Your task to perform on an android device: stop showing notifications on the lock screen Image 0: 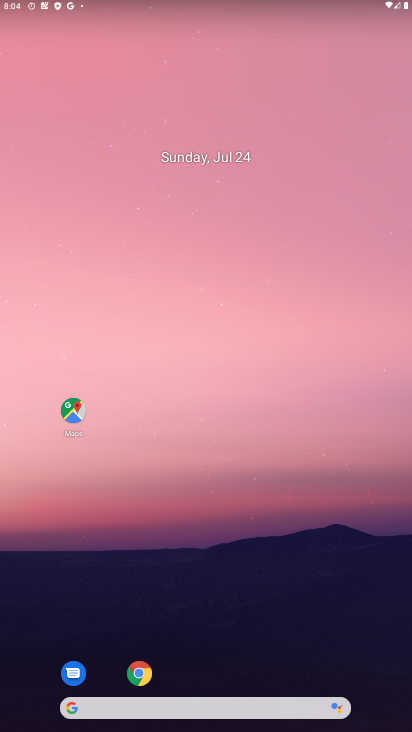
Step 0: drag from (21, 691) to (211, 195)
Your task to perform on an android device: stop showing notifications on the lock screen Image 1: 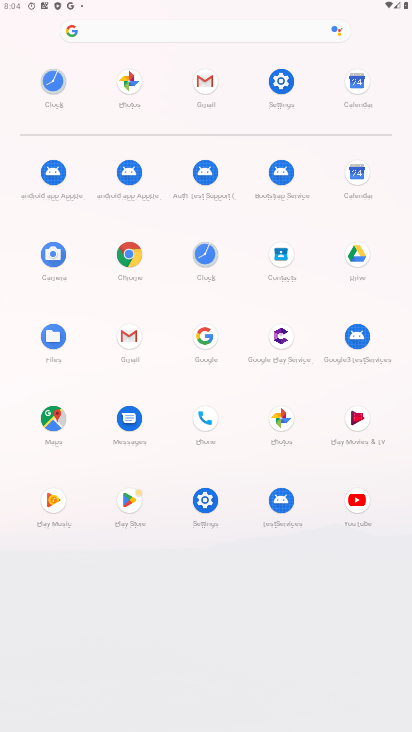
Step 1: click (208, 508)
Your task to perform on an android device: stop showing notifications on the lock screen Image 2: 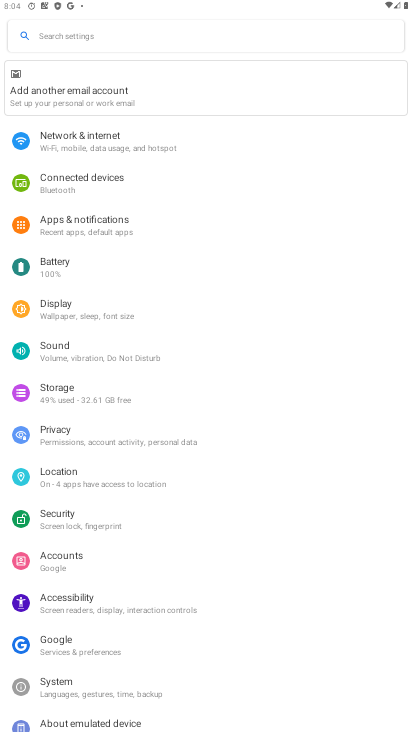
Step 2: click (77, 213)
Your task to perform on an android device: stop showing notifications on the lock screen Image 3: 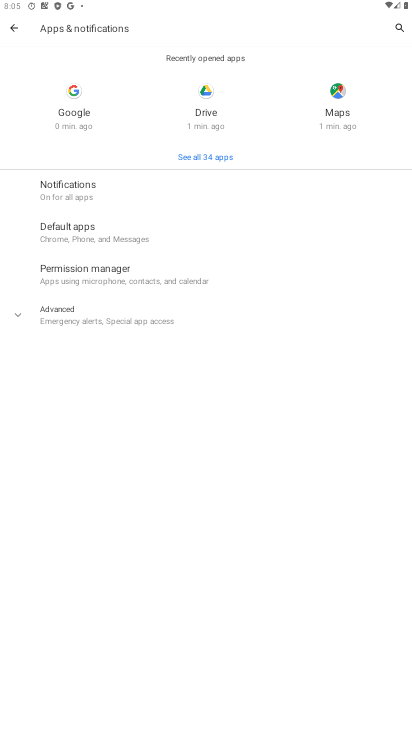
Step 3: click (111, 194)
Your task to perform on an android device: stop showing notifications on the lock screen Image 4: 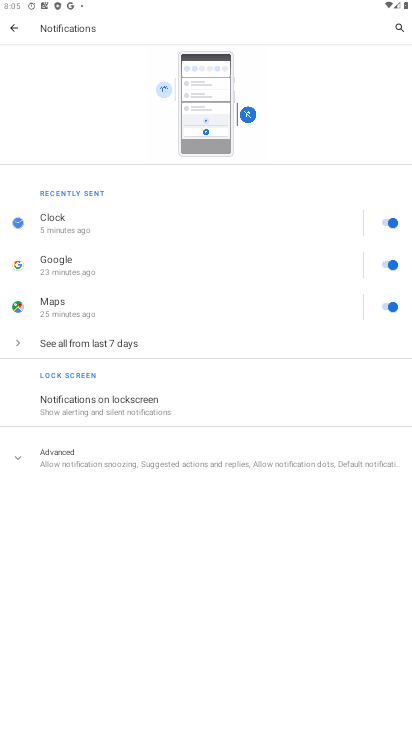
Step 4: click (87, 408)
Your task to perform on an android device: stop showing notifications on the lock screen Image 5: 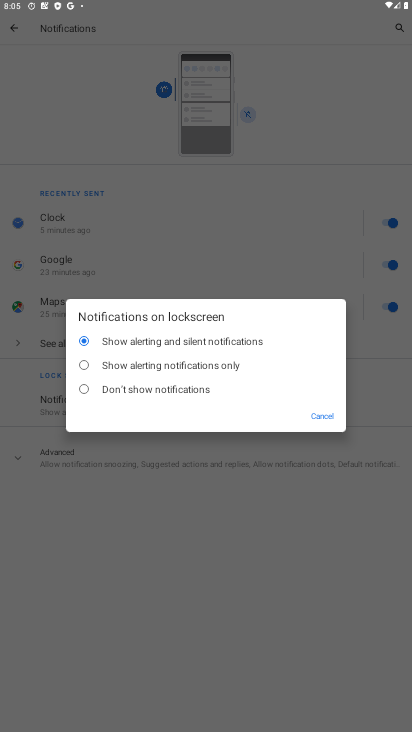
Step 5: click (93, 392)
Your task to perform on an android device: stop showing notifications on the lock screen Image 6: 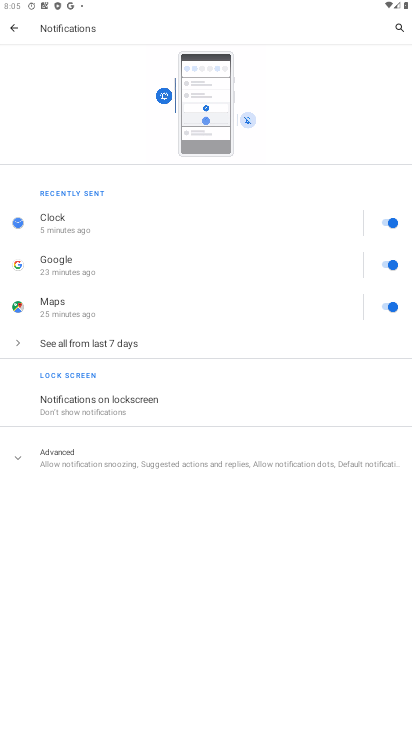
Step 6: task complete